Your task to perform on an android device: Open Yahoo.com Image 0: 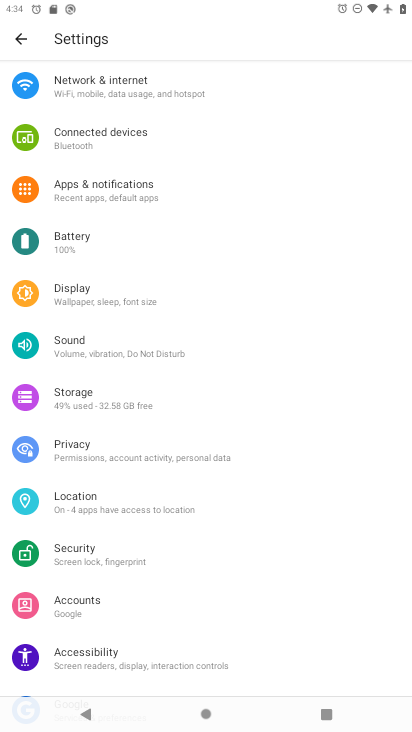
Step 0: press home button
Your task to perform on an android device: Open Yahoo.com Image 1: 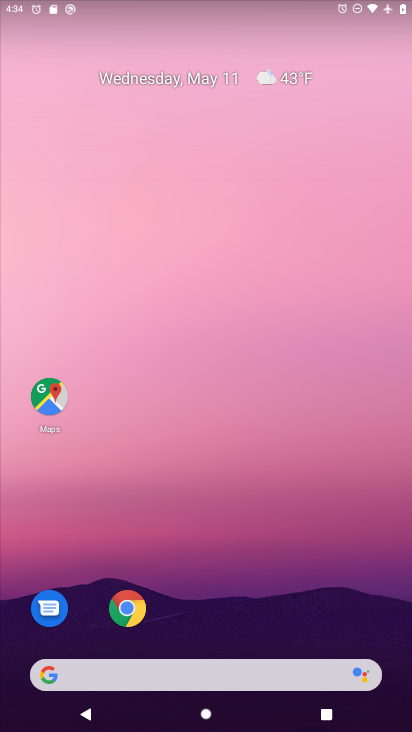
Step 1: click (124, 611)
Your task to perform on an android device: Open Yahoo.com Image 2: 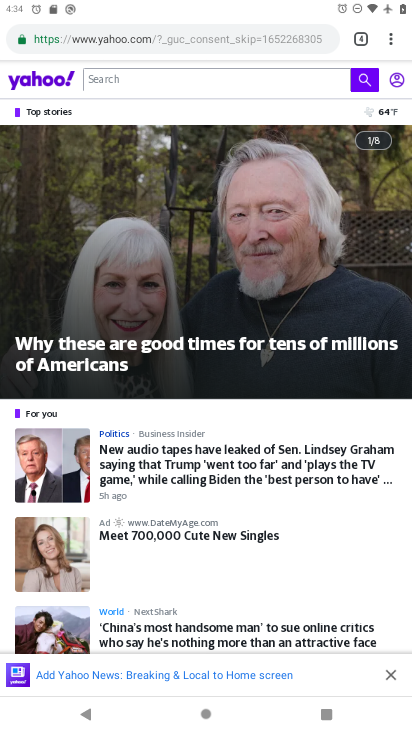
Step 2: task complete